Your task to perform on an android device: Open internet settings Image 0: 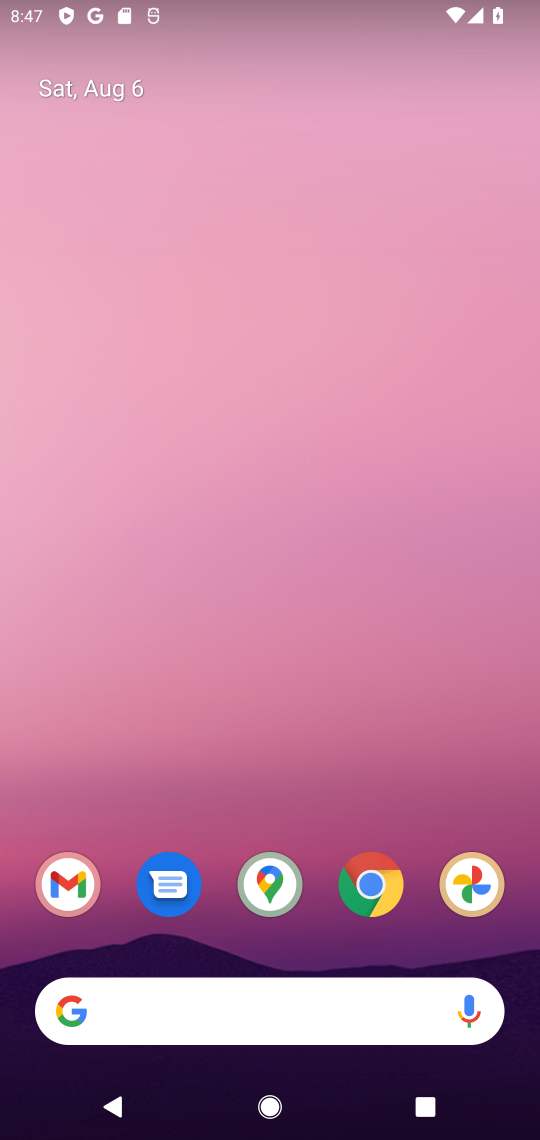
Step 0: drag from (327, 959) to (306, 146)
Your task to perform on an android device: Open internet settings Image 1: 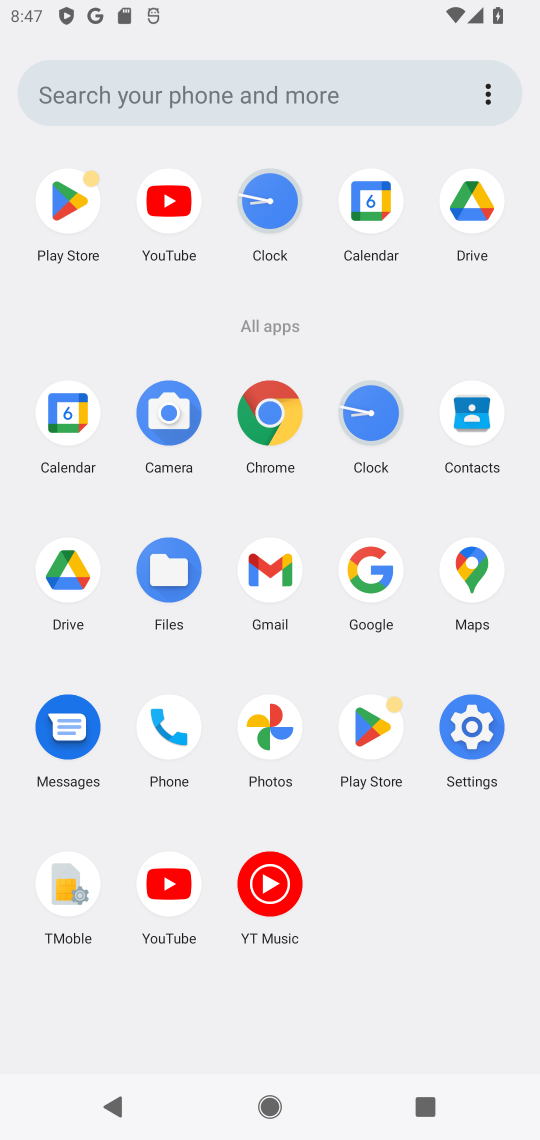
Step 1: click (476, 726)
Your task to perform on an android device: Open internet settings Image 2: 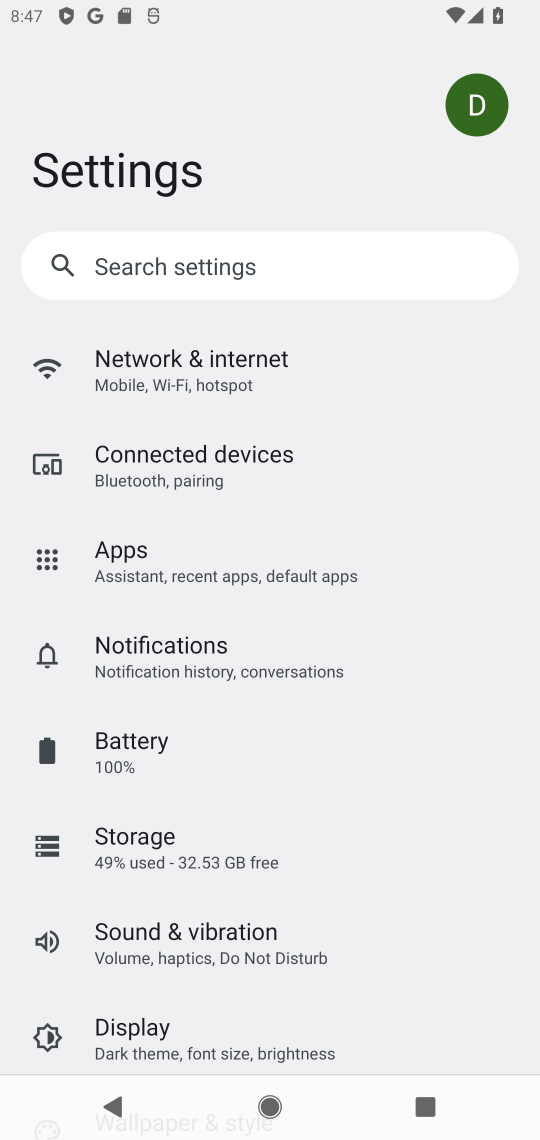
Step 2: click (147, 353)
Your task to perform on an android device: Open internet settings Image 3: 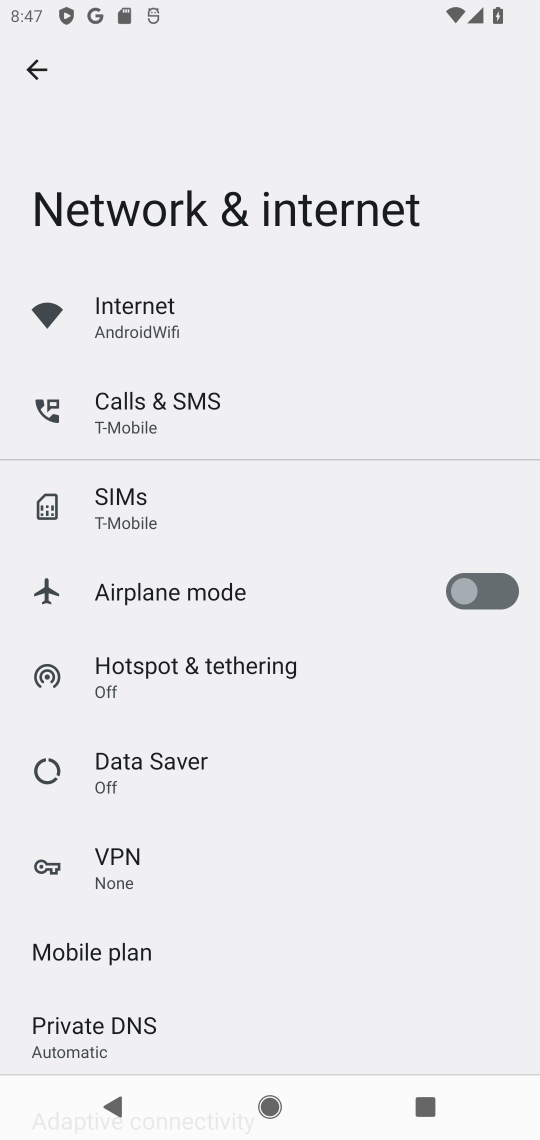
Step 3: click (130, 303)
Your task to perform on an android device: Open internet settings Image 4: 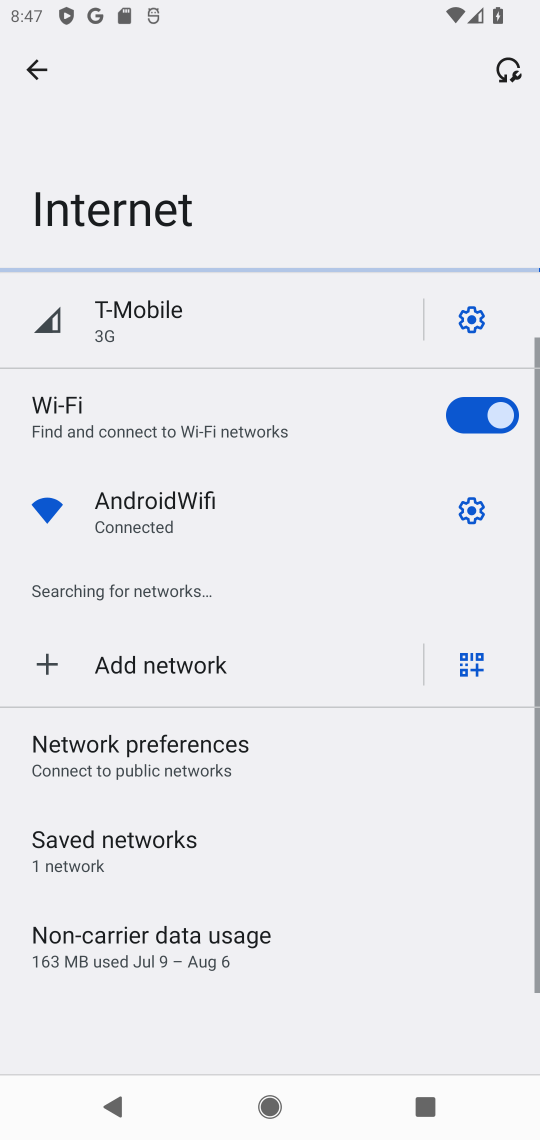
Step 4: task complete